Your task to perform on an android device: toggle location history Image 0: 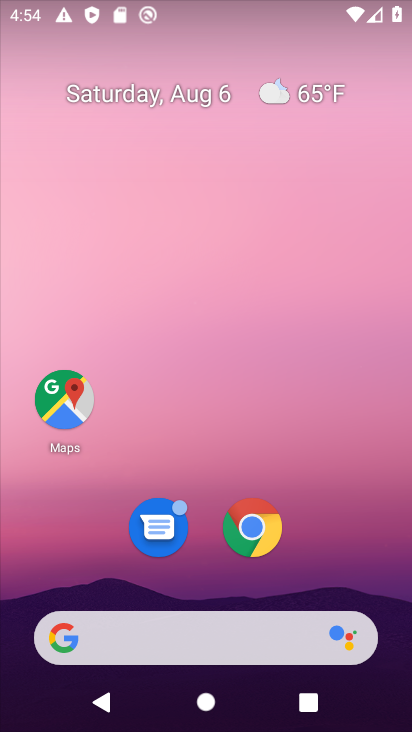
Step 0: drag from (197, 626) to (213, 216)
Your task to perform on an android device: toggle location history Image 1: 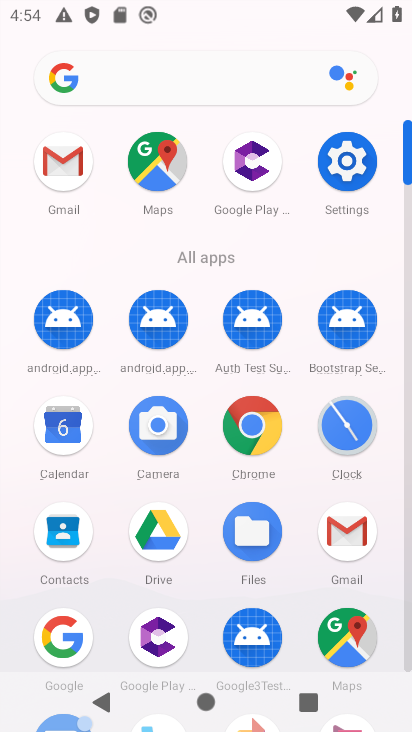
Step 1: click (341, 146)
Your task to perform on an android device: toggle location history Image 2: 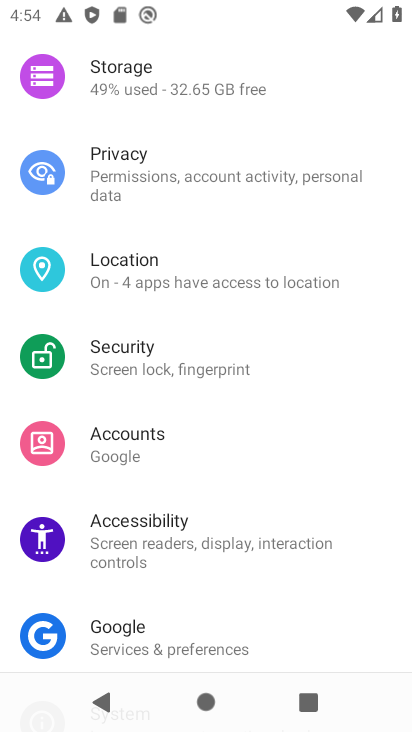
Step 2: click (155, 280)
Your task to perform on an android device: toggle location history Image 3: 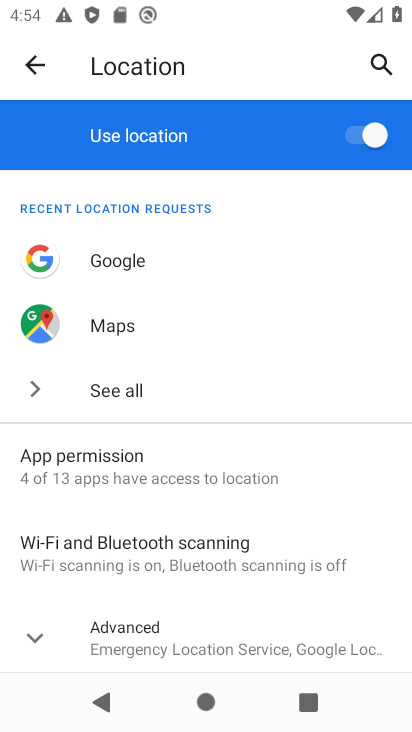
Step 3: click (166, 650)
Your task to perform on an android device: toggle location history Image 4: 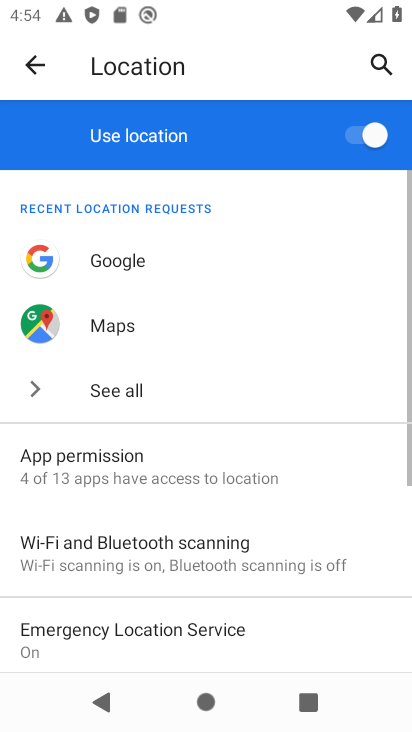
Step 4: drag from (162, 623) to (174, 357)
Your task to perform on an android device: toggle location history Image 5: 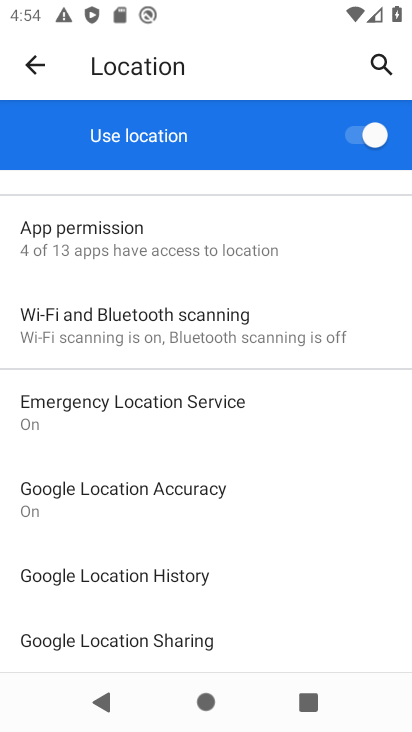
Step 5: click (155, 569)
Your task to perform on an android device: toggle location history Image 6: 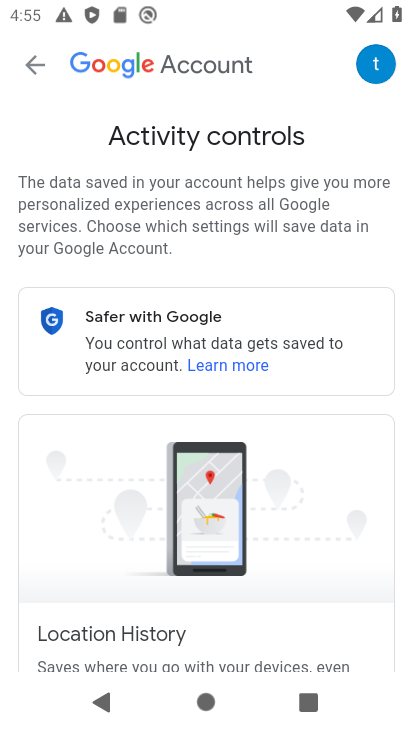
Step 6: drag from (227, 527) to (232, 172)
Your task to perform on an android device: toggle location history Image 7: 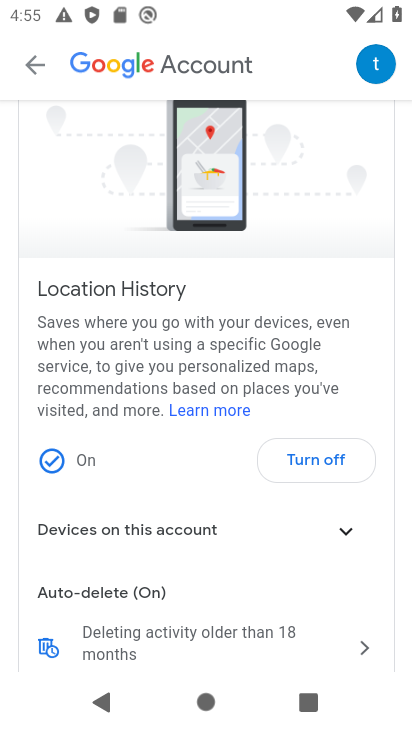
Step 7: click (324, 465)
Your task to perform on an android device: toggle location history Image 8: 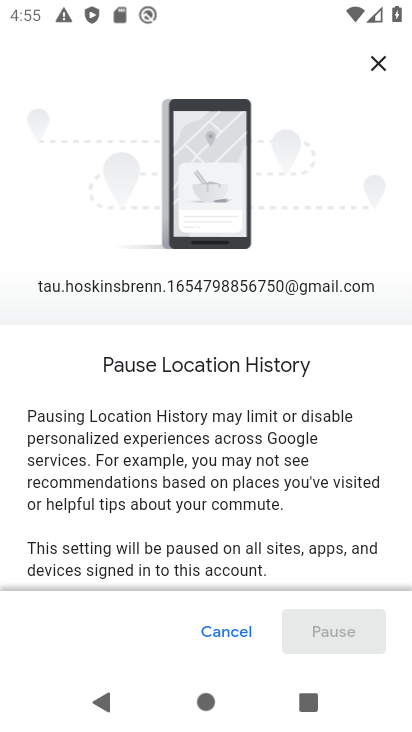
Step 8: drag from (308, 498) to (276, 14)
Your task to perform on an android device: toggle location history Image 9: 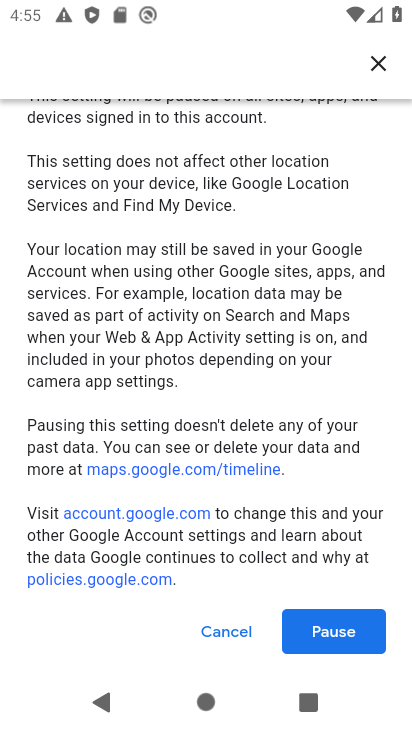
Step 9: click (310, 627)
Your task to perform on an android device: toggle location history Image 10: 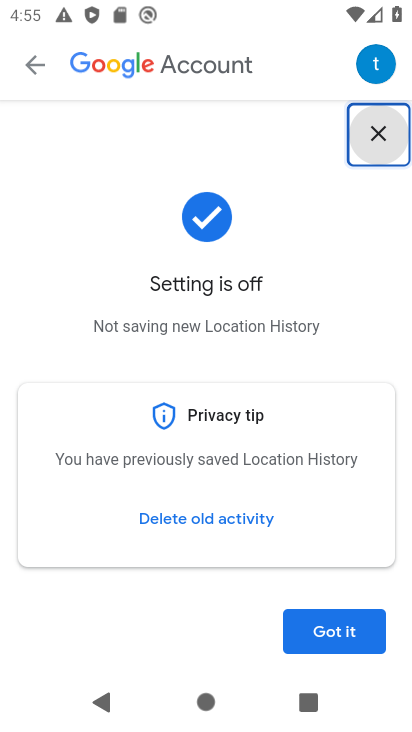
Step 10: click (310, 627)
Your task to perform on an android device: toggle location history Image 11: 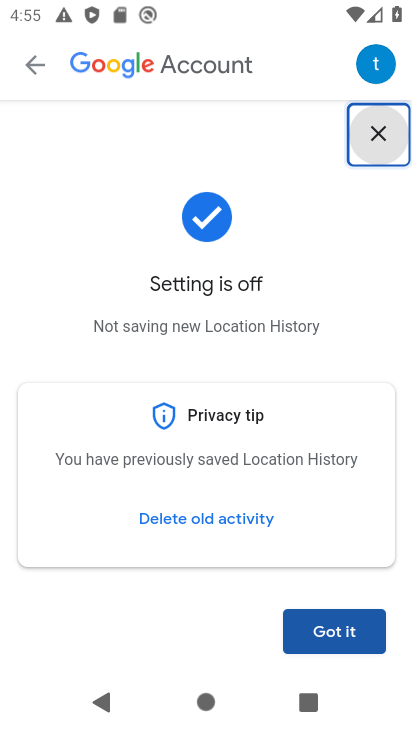
Step 11: task complete